Your task to perform on an android device: Open sound settings Image 0: 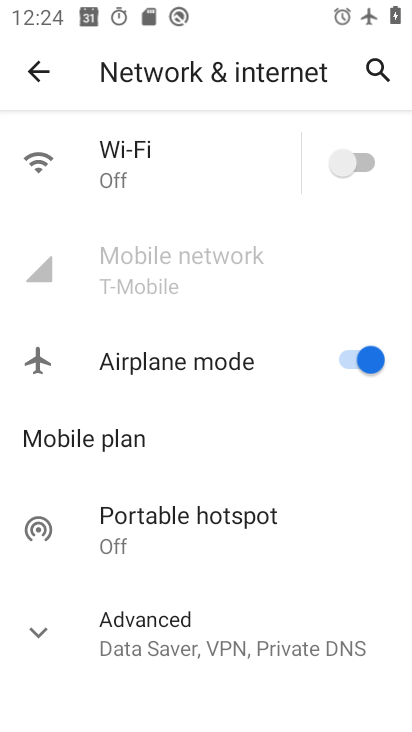
Step 0: press home button
Your task to perform on an android device: Open sound settings Image 1: 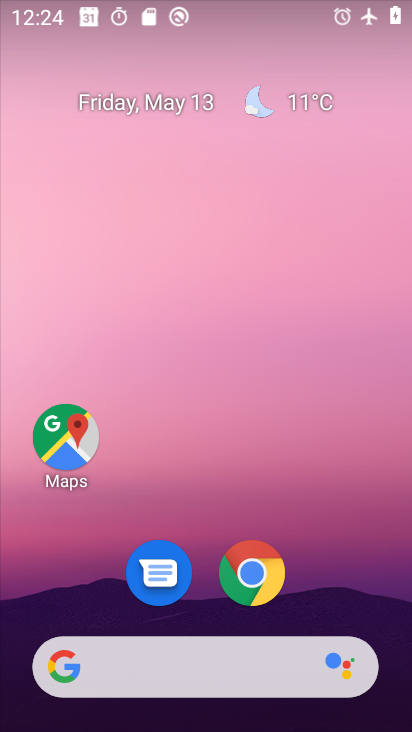
Step 1: drag from (382, 636) to (352, 104)
Your task to perform on an android device: Open sound settings Image 2: 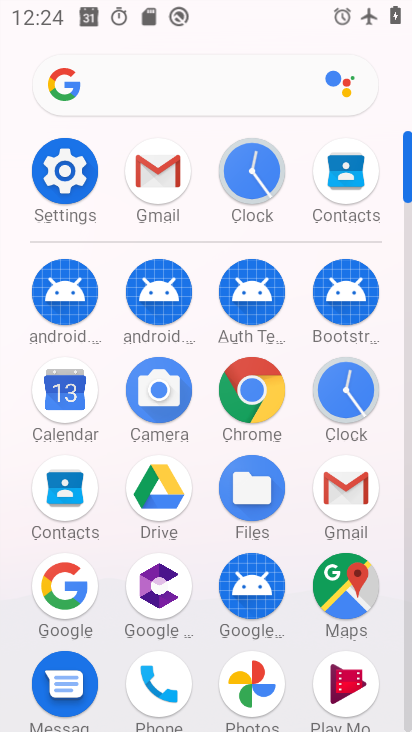
Step 2: click (72, 174)
Your task to perform on an android device: Open sound settings Image 3: 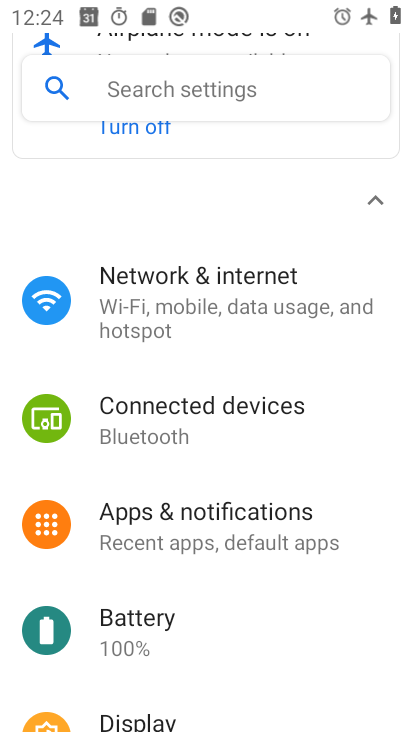
Step 3: click (140, 300)
Your task to perform on an android device: Open sound settings Image 4: 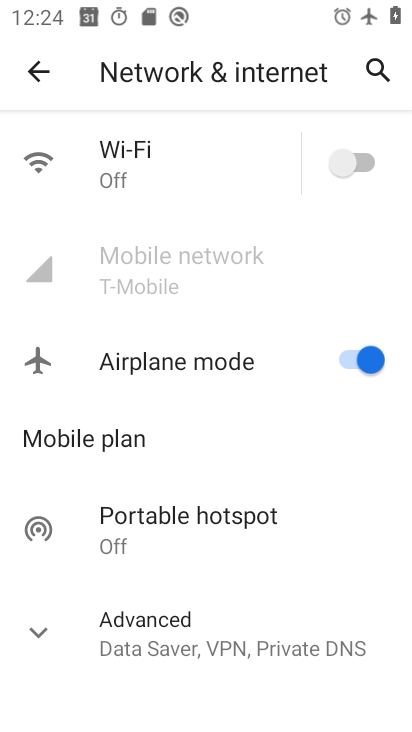
Step 4: click (340, 370)
Your task to perform on an android device: Open sound settings Image 5: 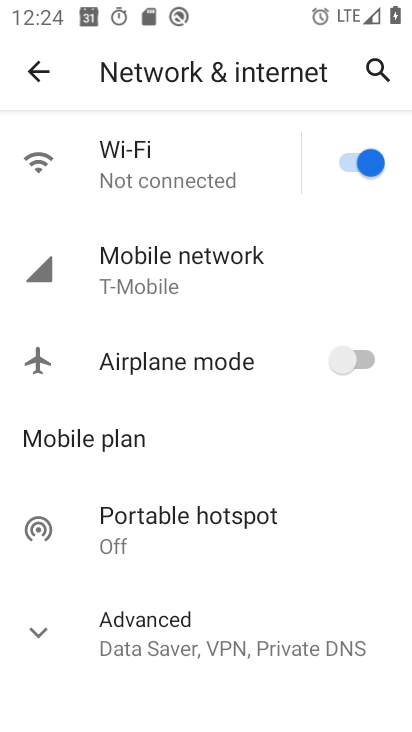
Step 5: click (30, 79)
Your task to perform on an android device: Open sound settings Image 6: 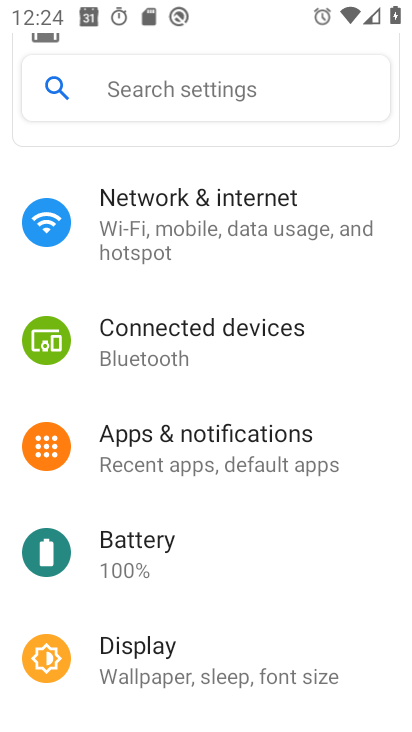
Step 6: drag from (249, 622) to (264, 375)
Your task to perform on an android device: Open sound settings Image 7: 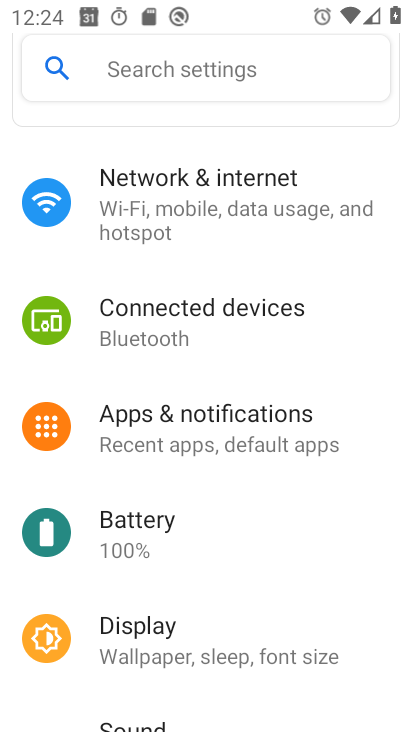
Step 7: drag from (269, 668) to (286, 348)
Your task to perform on an android device: Open sound settings Image 8: 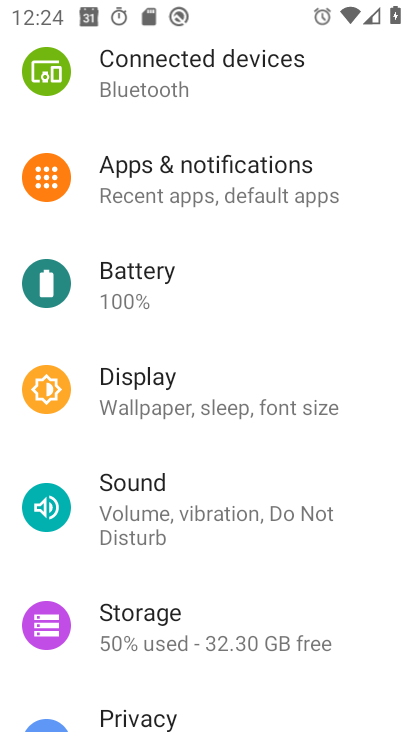
Step 8: click (128, 489)
Your task to perform on an android device: Open sound settings Image 9: 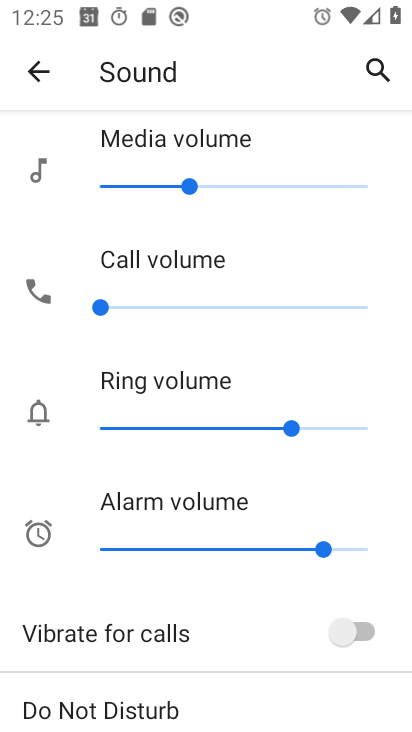
Step 9: task complete